Your task to perform on an android device: snooze an email in the gmail app Image 0: 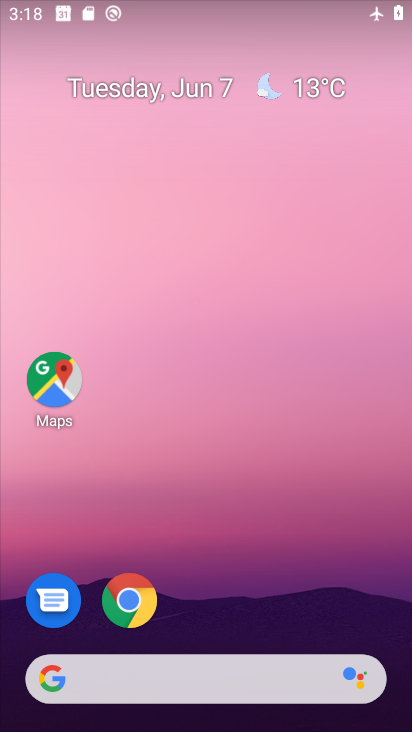
Step 0: drag from (292, 627) to (271, 217)
Your task to perform on an android device: snooze an email in the gmail app Image 1: 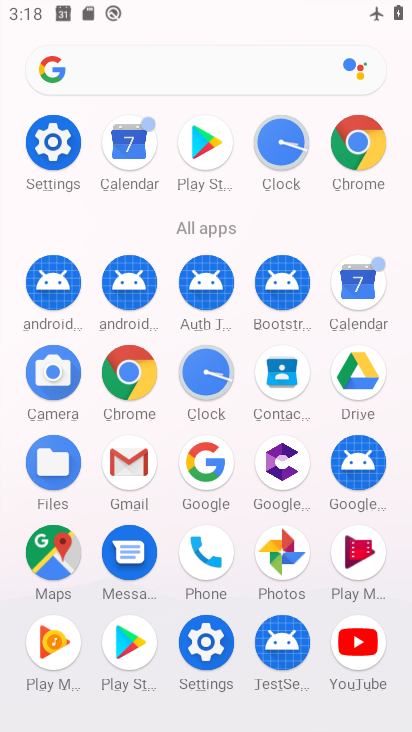
Step 1: click (136, 458)
Your task to perform on an android device: snooze an email in the gmail app Image 2: 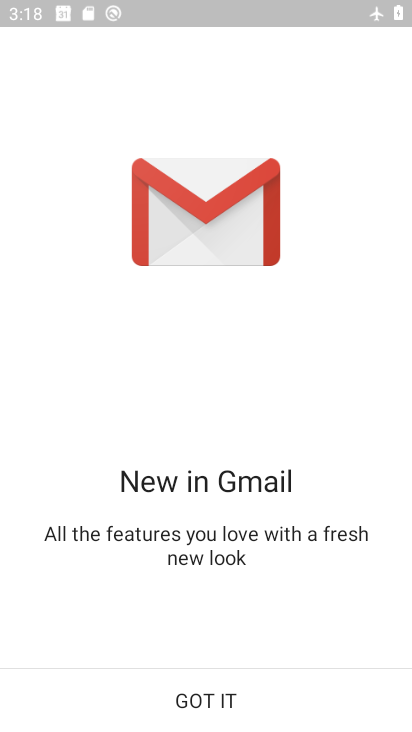
Step 2: click (198, 696)
Your task to perform on an android device: snooze an email in the gmail app Image 3: 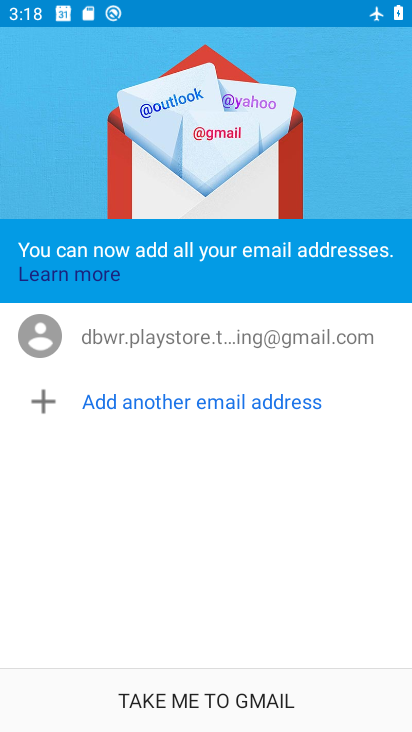
Step 3: click (204, 703)
Your task to perform on an android device: snooze an email in the gmail app Image 4: 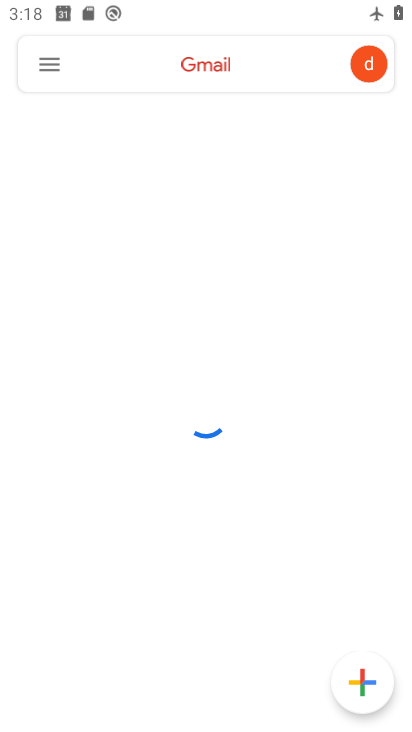
Step 4: click (61, 61)
Your task to perform on an android device: snooze an email in the gmail app Image 5: 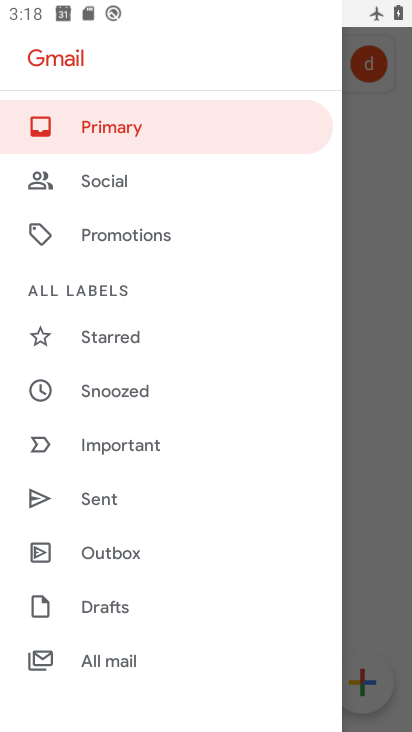
Step 5: click (112, 658)
Your task to perform on an android device: snooze an email in the gmail app Image 6: 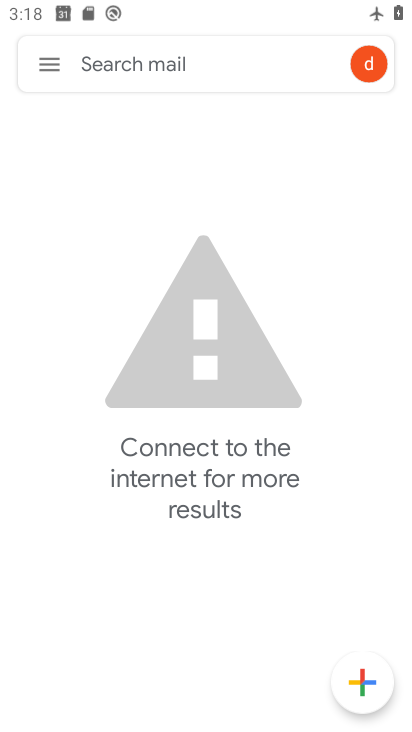
Step 6: task complete